Your task to perform on an android device: When is my next appointment? Image 0: 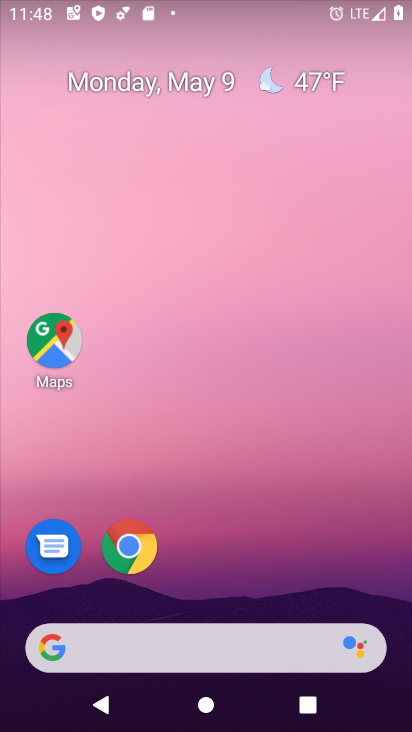
Step 0: drag from (376, 564) to (382, 0)
Your task to perform on an android device: When is my next appointment? Image 1: 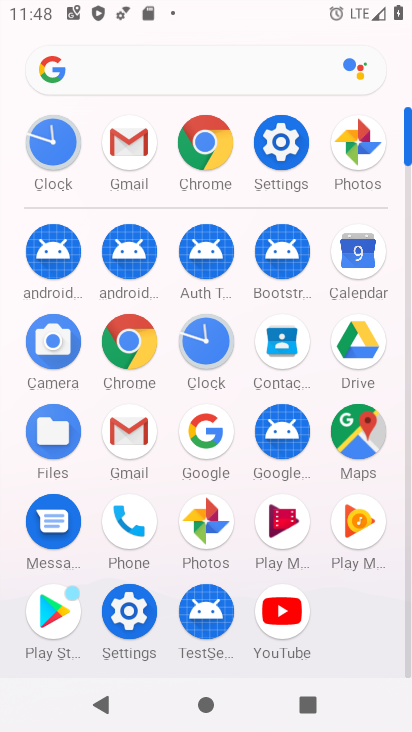
Step 1: click (365, 254)
Your task to perform on an android device: When is my next appointment? Image 2: 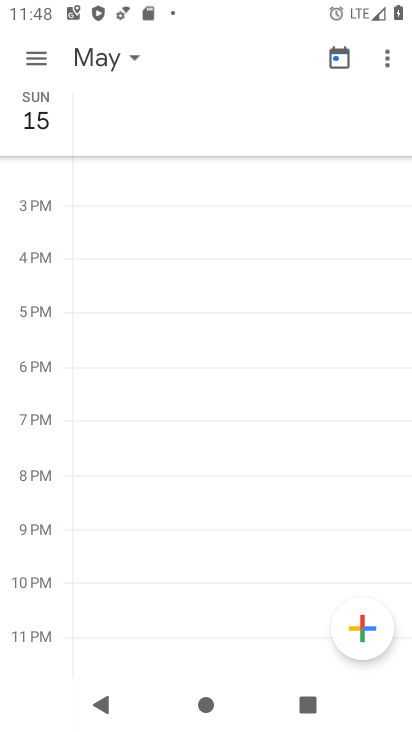
Step 2: click (31, 60)
Your task to perform on an android device: When is my next appointment? Image 3: 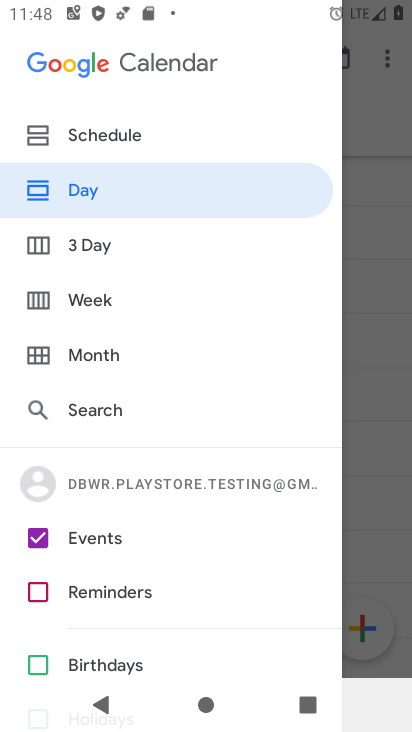
Step 3: click (68, 135)
Your task to perform on an android device: When is my next appointment? Image 4: 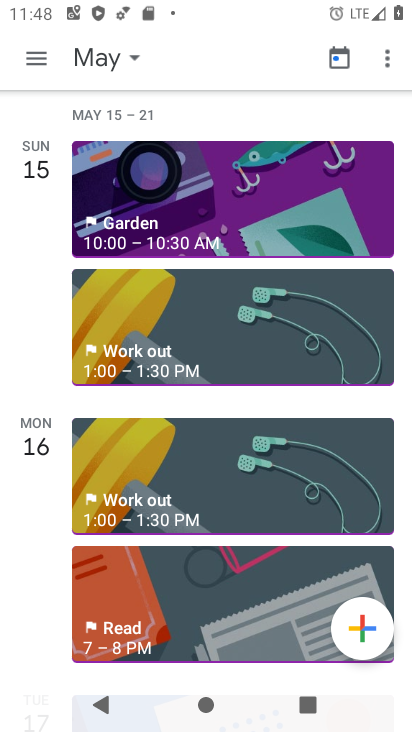
Step 4: click (141, 57)
Your task to perform on an android device: When is my next appointment? Image 5: 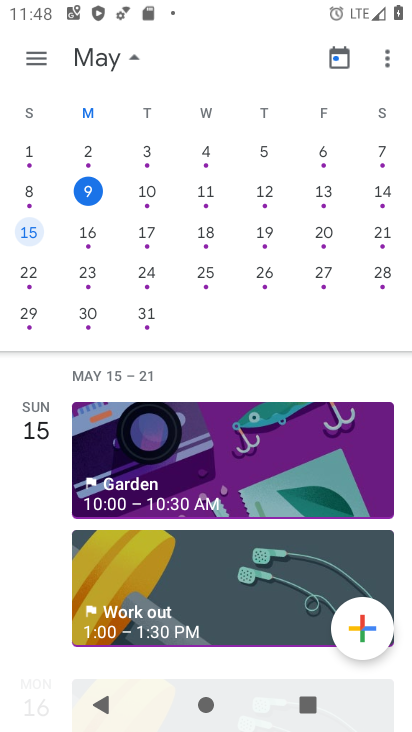
Step 5: click (87, 188)
Your task to perform on an android device: When is my next appointment? Image 6: 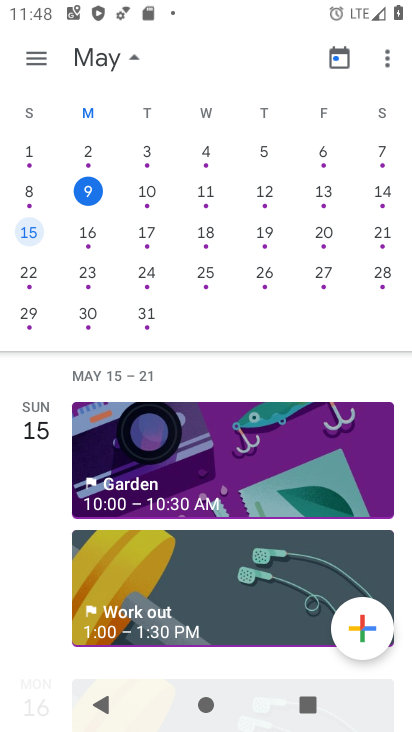
Step 6: click (91, 196)
Your task to perform on an android device: When is my next appointment? Image 7: 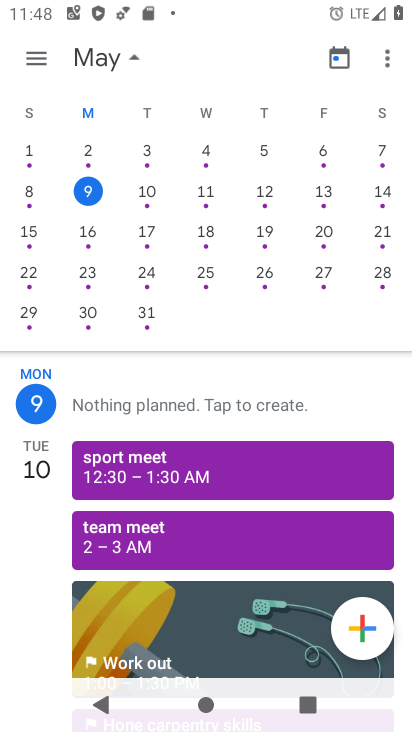
Step 7: click (196, 476)
Your task to perform on an android device: When is my next appointment? Image 8: 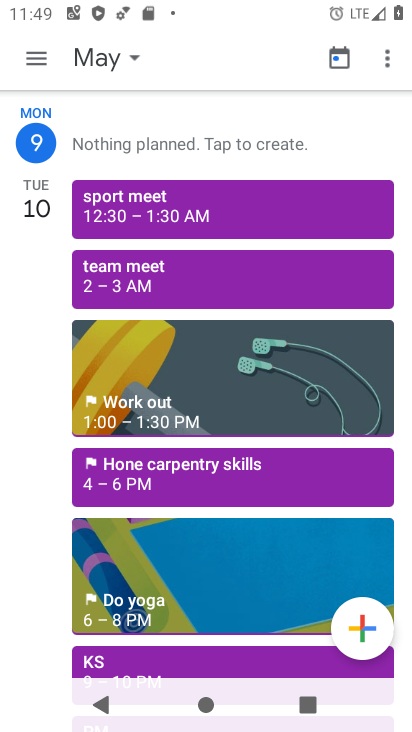
Step 8: click (180, 210)
Your task to perform on an android device: When is my next appointment? Image 9: 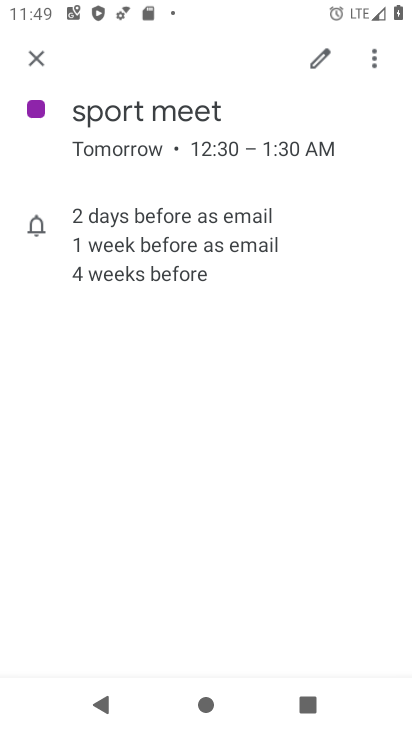
Step 9: task complete